Your task to perform on an android device: open app "Microsoft Excel" (install if not already installed) and go to login screen Image 0: 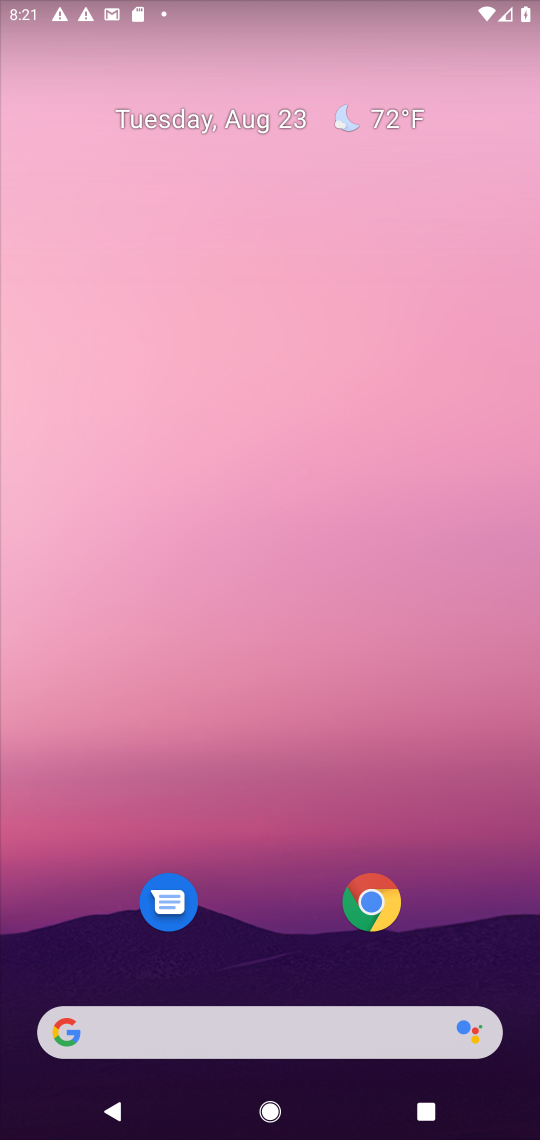
Step 0: drag from (304, 1031) to (194, 30)
Your task to perform on an android device: open app "Microsoft Excel" (install if not already installed) and go to login screen Image 1: 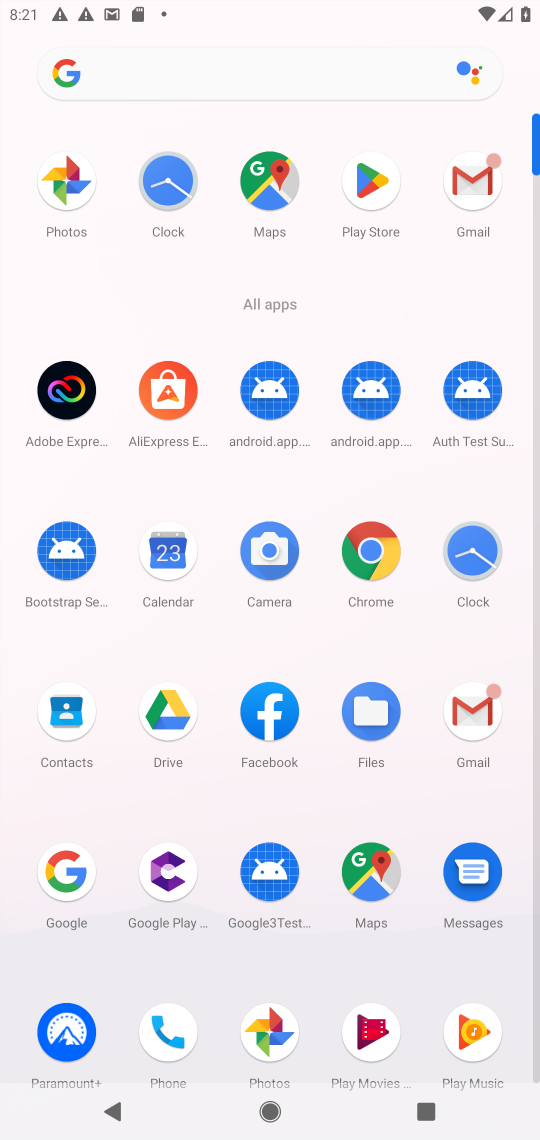
Step 1: click (349, 179)
Your task to perform on an android device: open app "Microsoft Excel" (install if not already installed) and go to login screen Image 2: 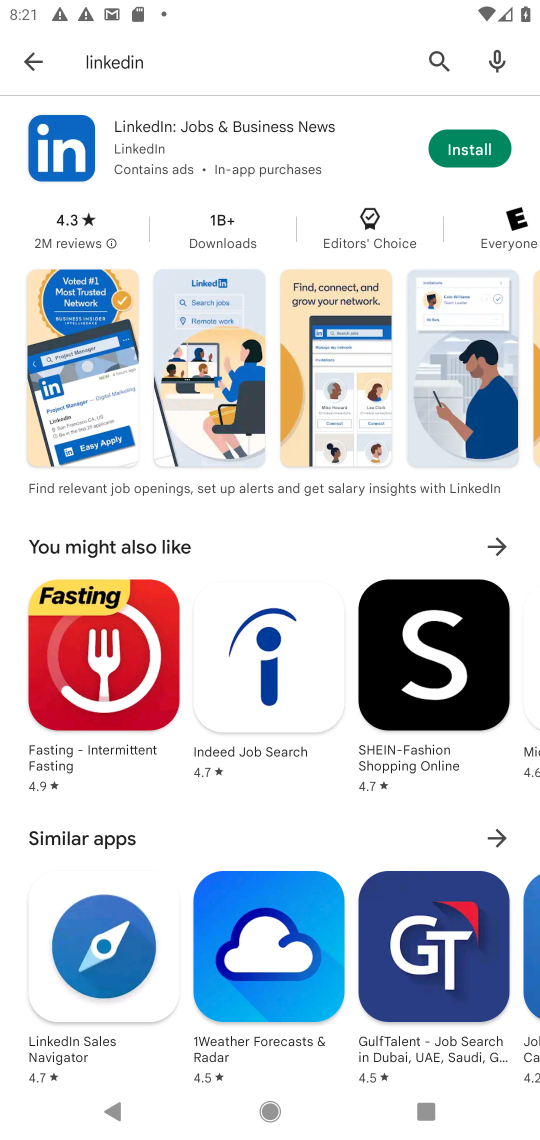
Step 2: click (432, 66)
Your task to perform on an android device: open app "Microsoft Excel" (install if not already installed) and go to login screen Image 3: 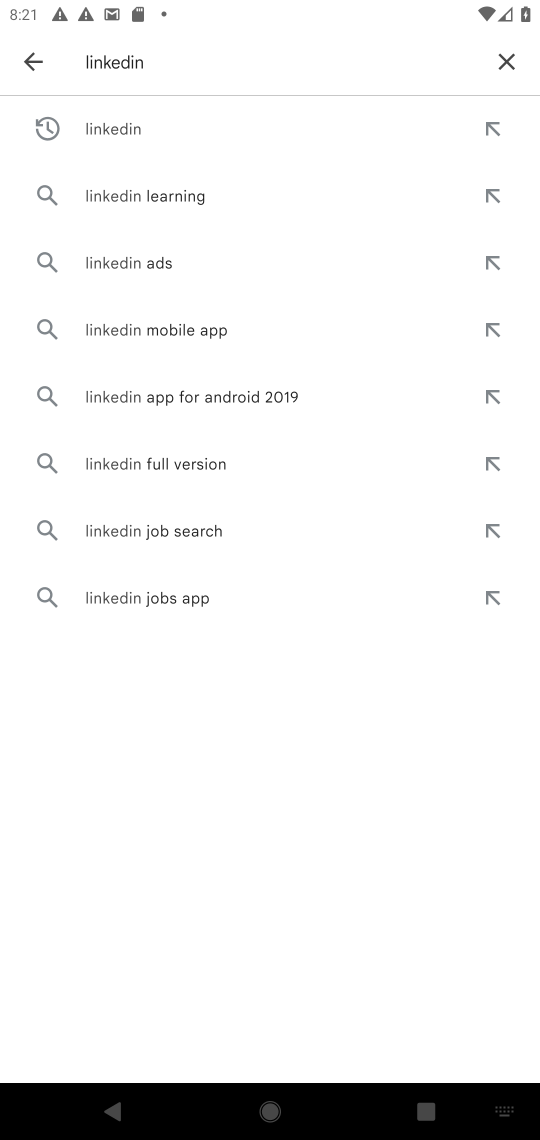
Step 3: click (510, 57)
Your task to perform on an android device: open app "Microsoft Excel" (install if not already installed) and go to login screen Image 4: 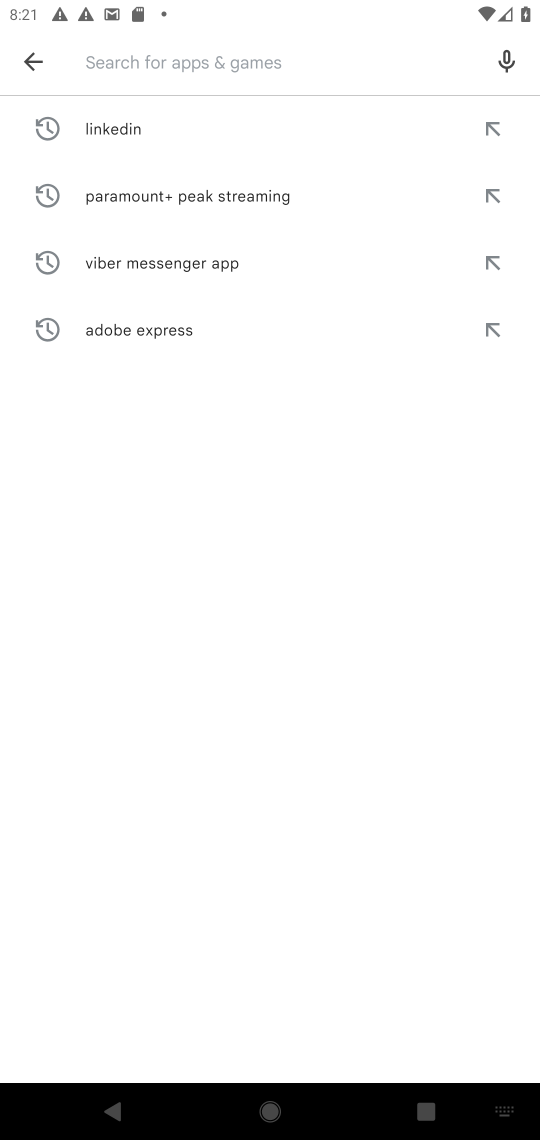
Step 4: type "microsoft excel"
Your task to perform on an android device: open app "Microsoft Excel" (install if not already installed) and go to login screen Image 5: 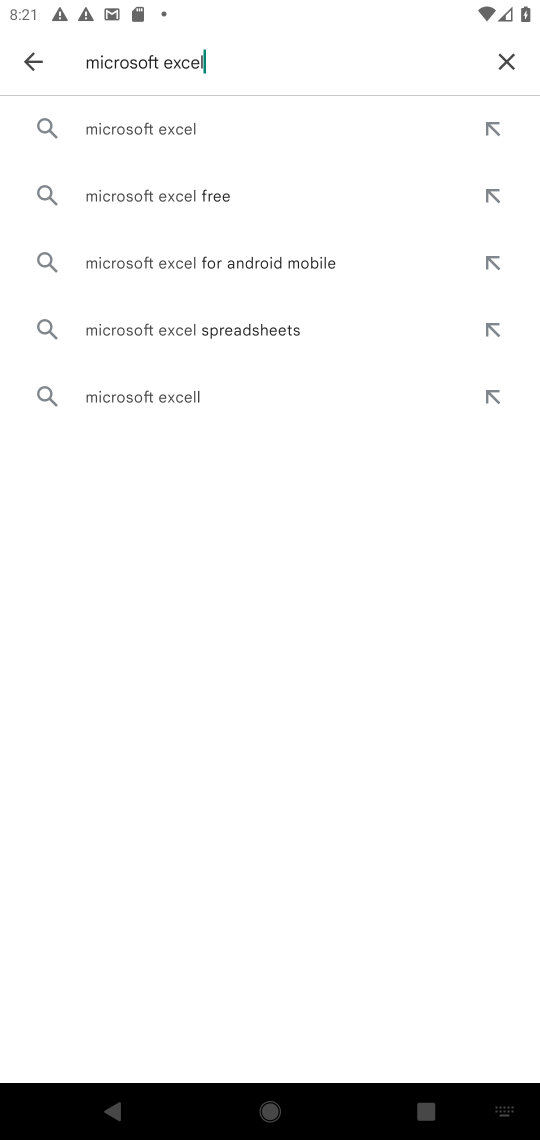
Step 5: click (223, 131)
Your task to perform on an android device: open app "Microsoft Excel" (install if not already installed) and go to login screen Image 6: 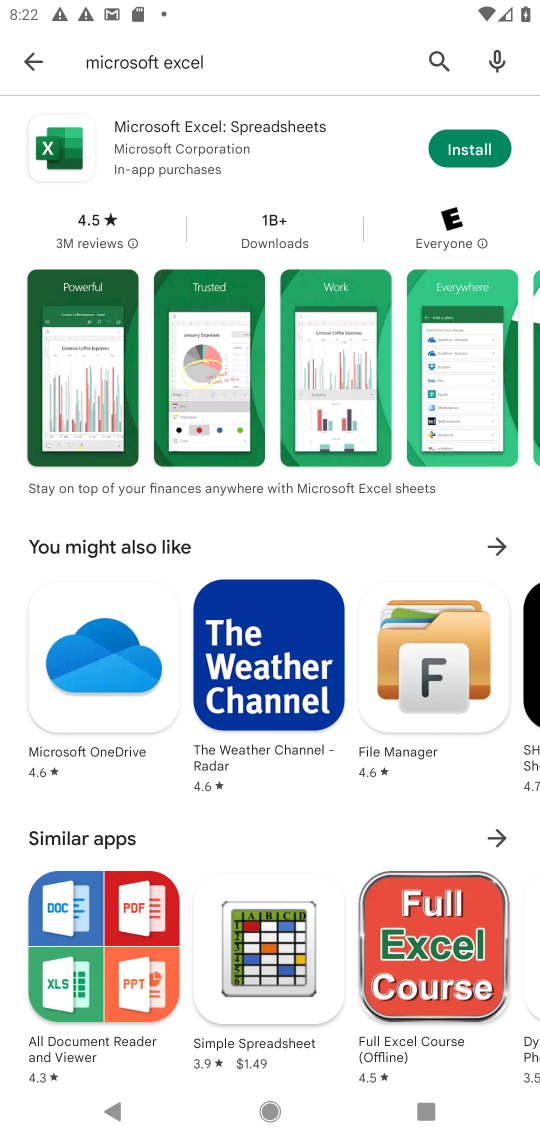
Step 6: click (482, 150)
Your task to perform on an android device: open app "Microsoft Excel" (install if not already installed) and go to login screen Image 7: 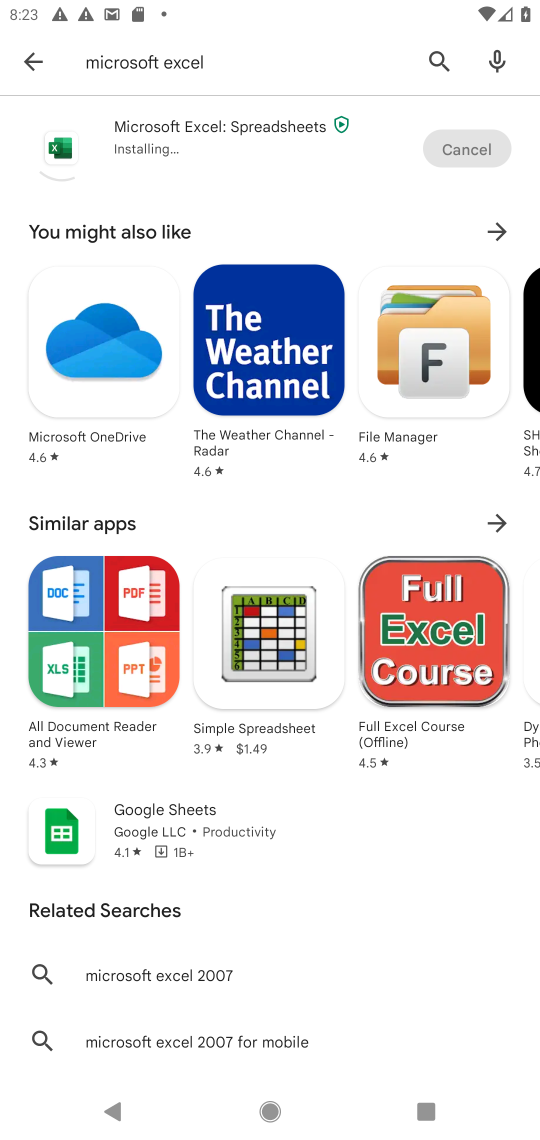
Step 7: click (310, 949)
Your task to perform on an android device: open app "Microsoft Excel" (install if not already installed) and go to login screen Image 8: 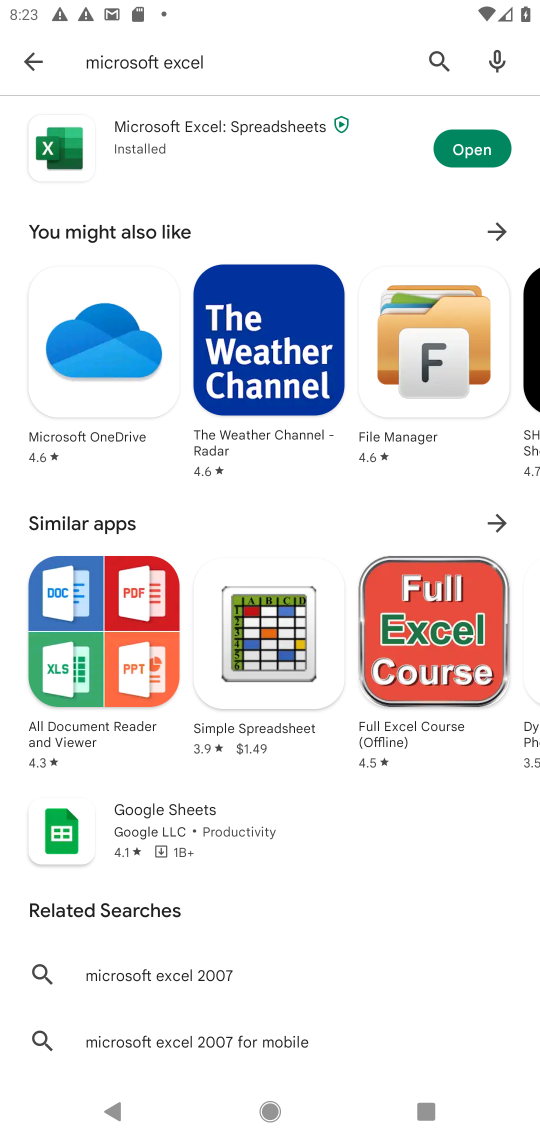
Step 8: click (474, 146)
Your task to perform on an android device: open app "Microsoft Excel" (install if not already installed) and go to login screen Image 9: 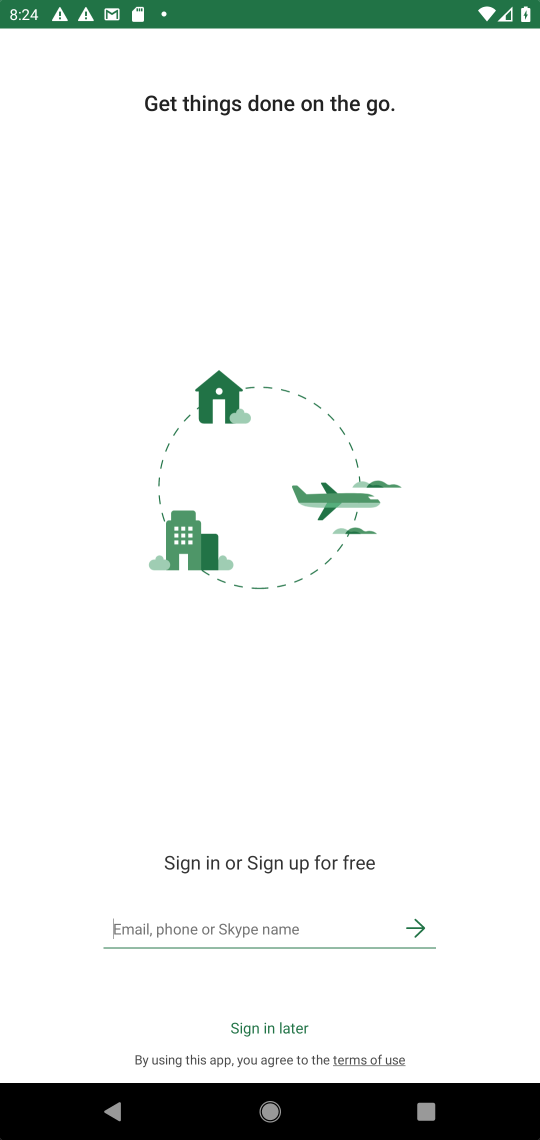
Step 9: task complete